Your task to perform on an android device: see creations saved in the google photos Image 0: 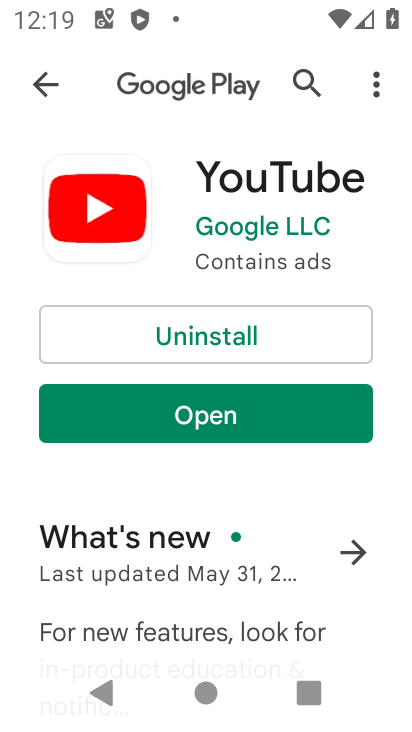
Step 0: press back button
Your task to perform on an android device: see creations saved in the google photos Image 1: 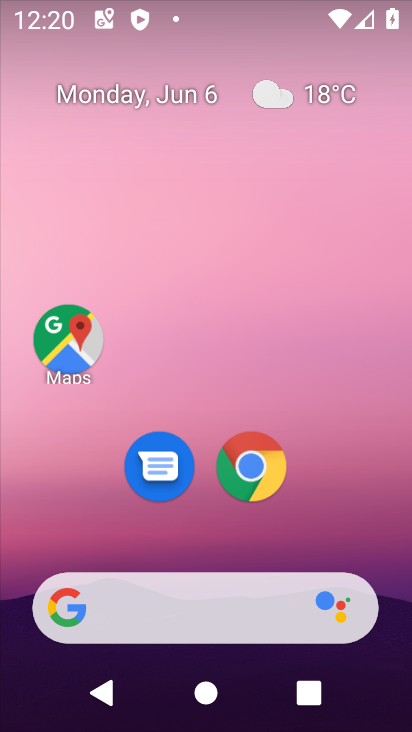
Step 1: drag from (335, 525) to (171, 30)
Your task to perform on an android device: see creations saved in the google photos Image 2: 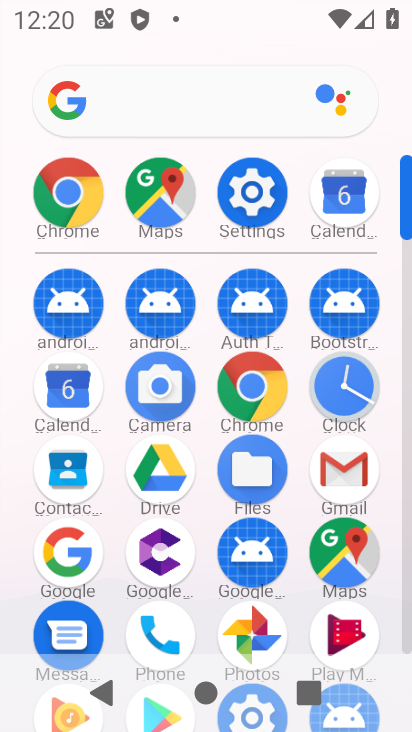
Step 2: click (249, 633)
Your task to perform on an android device: see creations saved in the google photos Image 3: 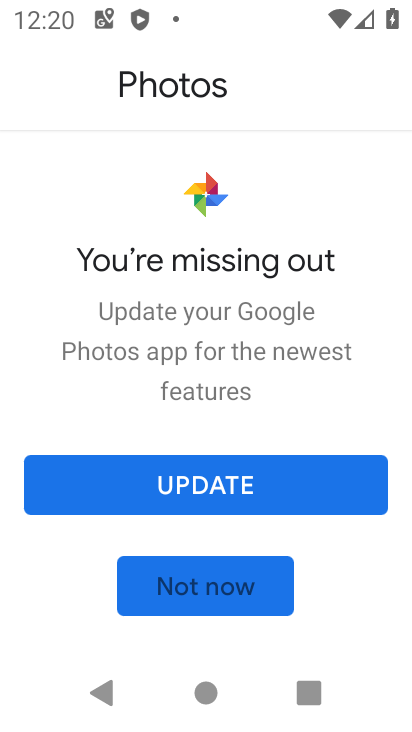
Step 3: click (231, 487)
Your task to perform on an android device: see creations saved in the google photos Image 4: 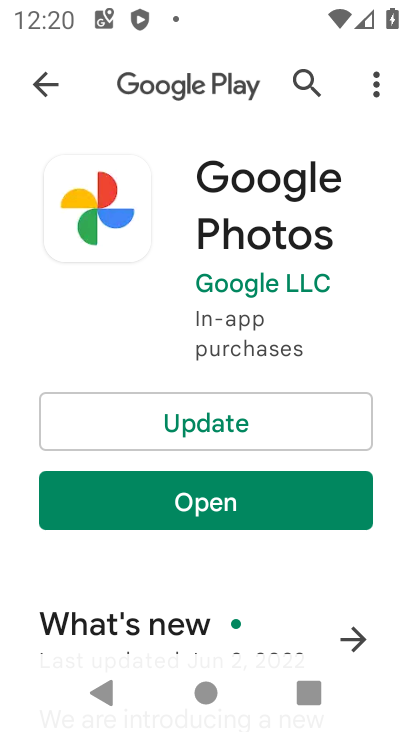
Step 4: click (216, 420)
Your task to perform on an android device: see creations saved in the google photos Image 5: 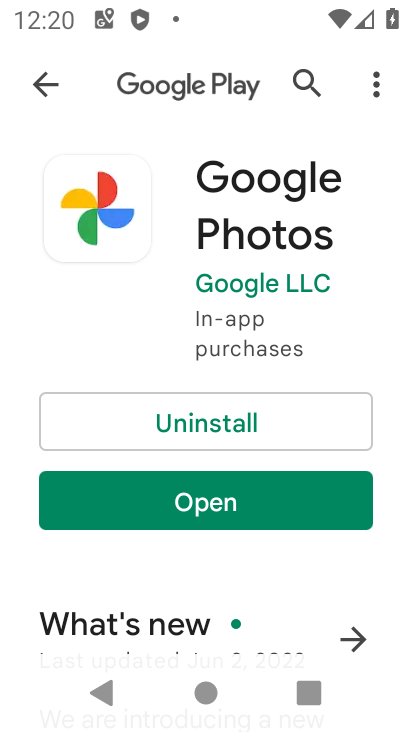
Step 5: click (198, 509)
Your task to perform on an android device: see creations saved in the google photos Image 6: 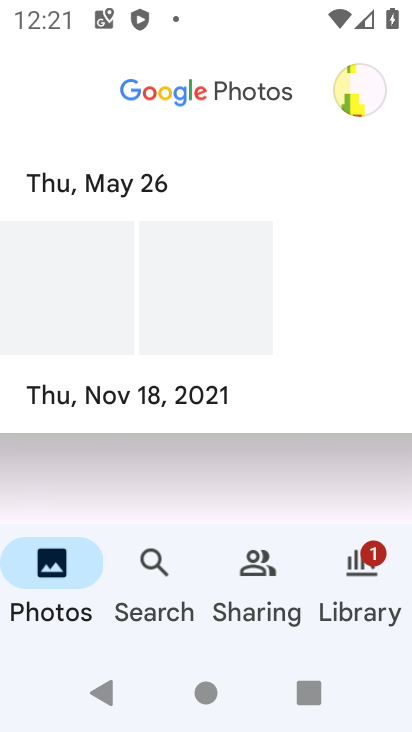
Step 6: task complete